Your task to perform on an android device: Search for a new foundation (skincare) product Image 0: 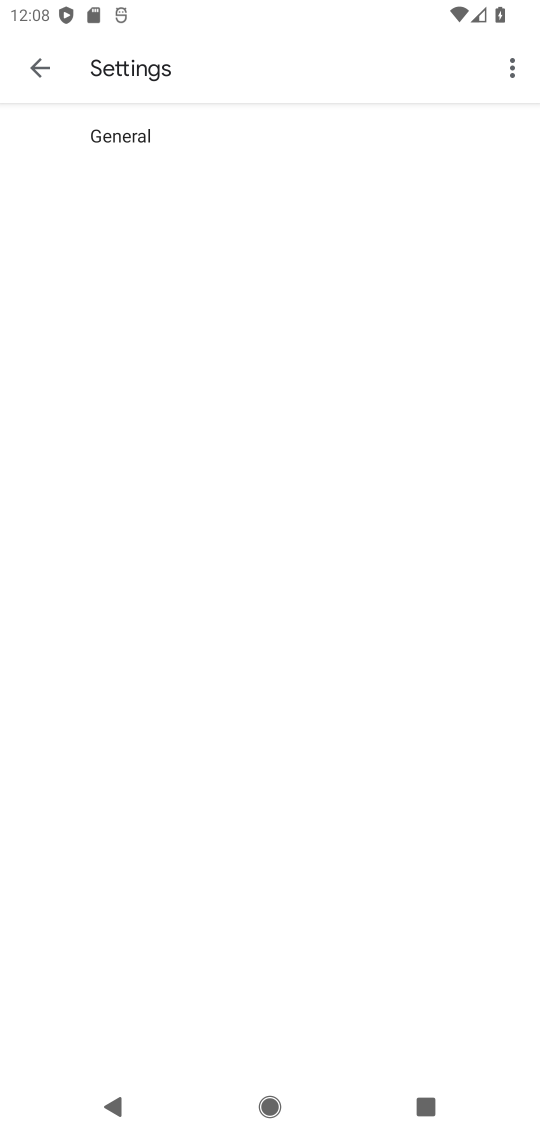
Step 0: press home button
Your task to perform on an android device: Search for a new foundation (skincare) product Image 1: 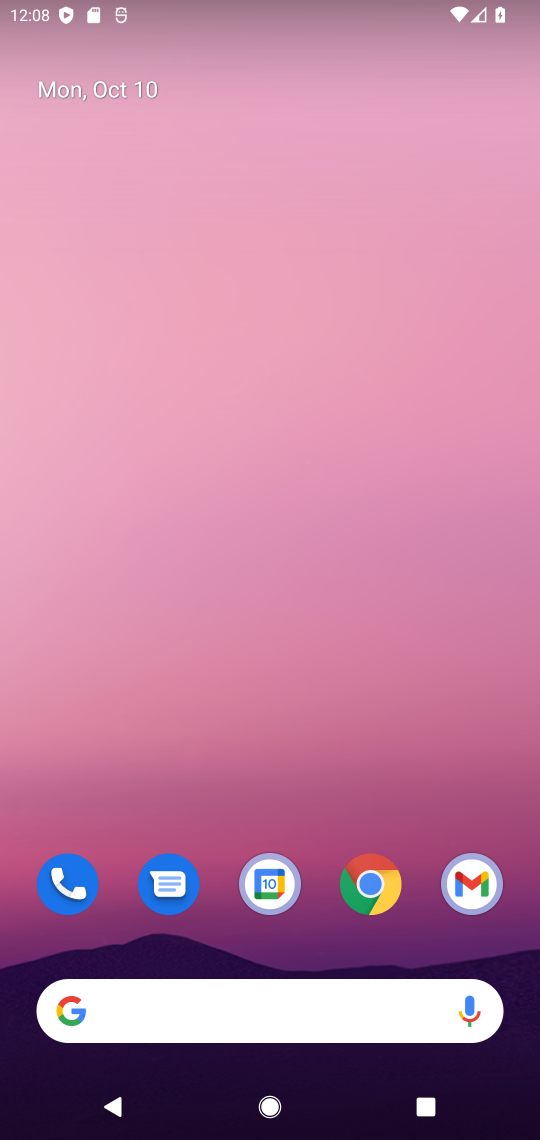
Step 1: click (362, 883)
Your task to perform on an android device: Search for a new foundation (skincare) product Image 2: 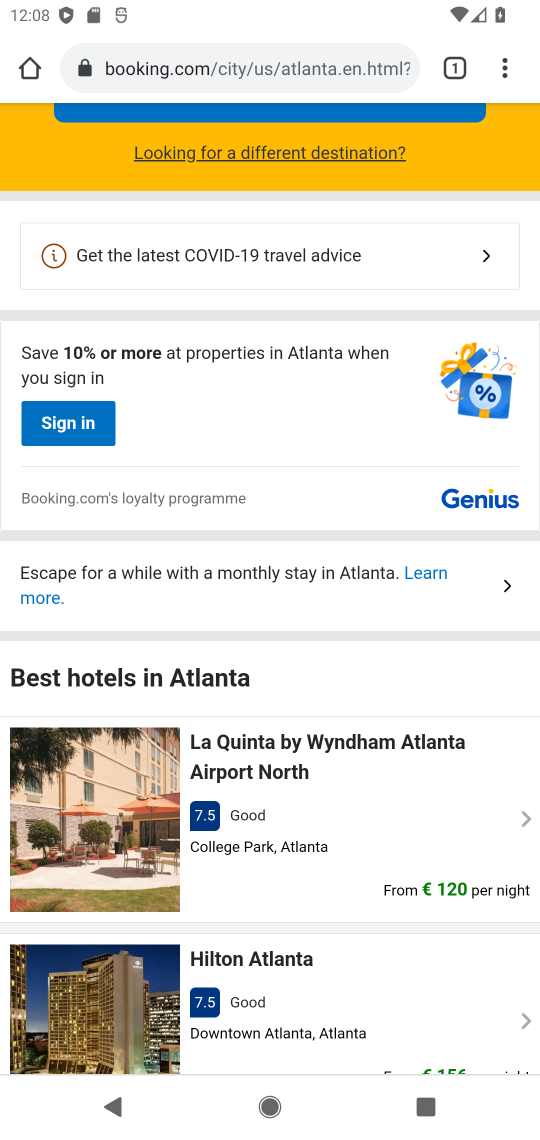
Step 2: click (270, 78)
Your task to perform on an android device: Search for a new foundation (skincare) product Image 3: 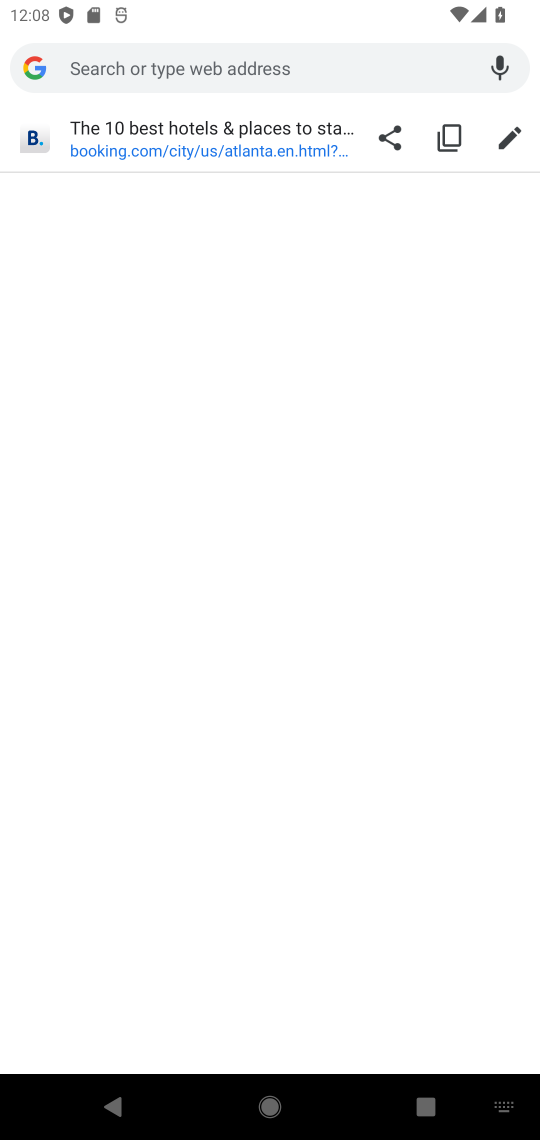
Step 3: type "foundation"
Your task to perform on an android device: Search for a new foundation (skincare) product Image 4: 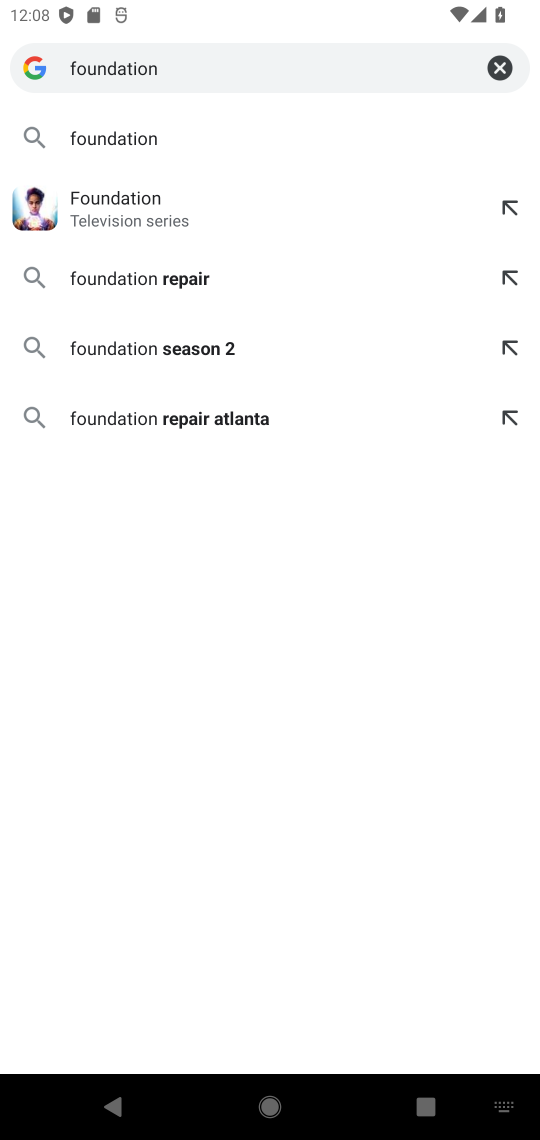
Step 4: type " skin care product"
Your task to perform on an android device: Search for a new foundation (skincare) product Image 5: 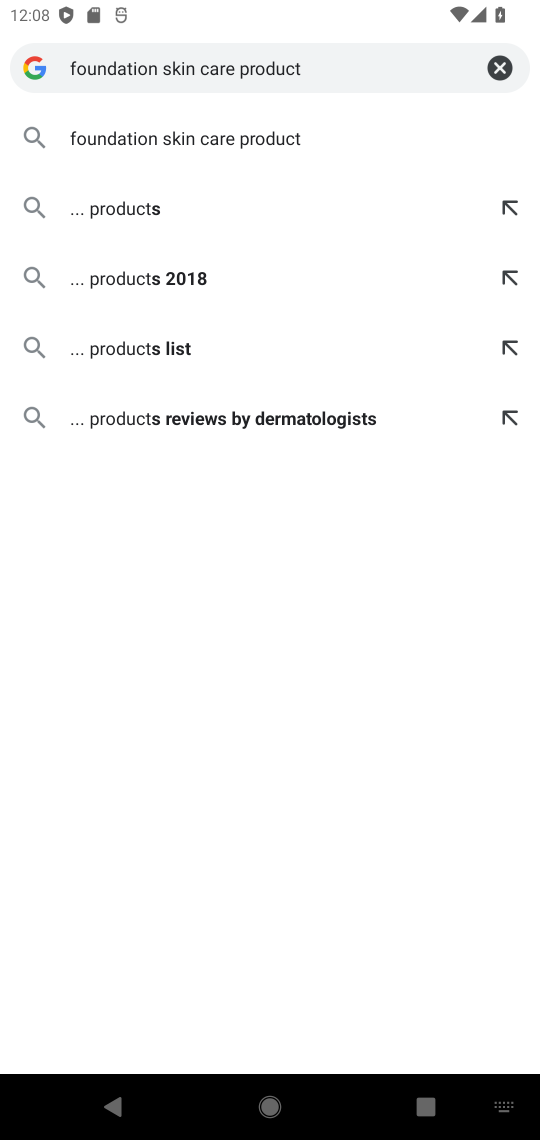
Step 5: press enter
Your task to perform on an android device: Search for a new foundation (skincare) product Image 6: 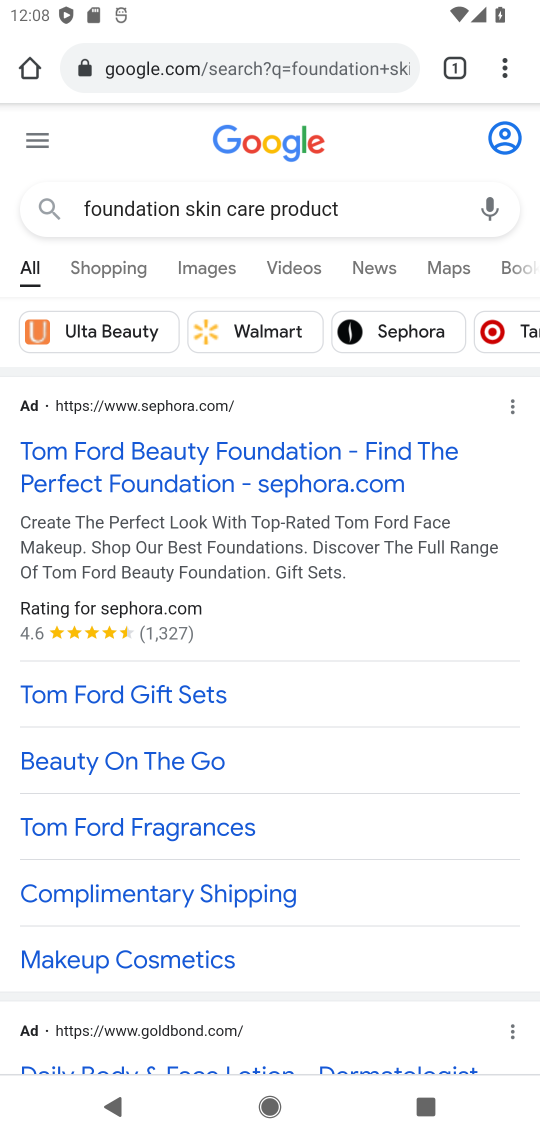
Step 6: drag from (363, 732) to (322, 269)
Your task to perform on an android device: Search for a new foundation (skincare) product Image 7: 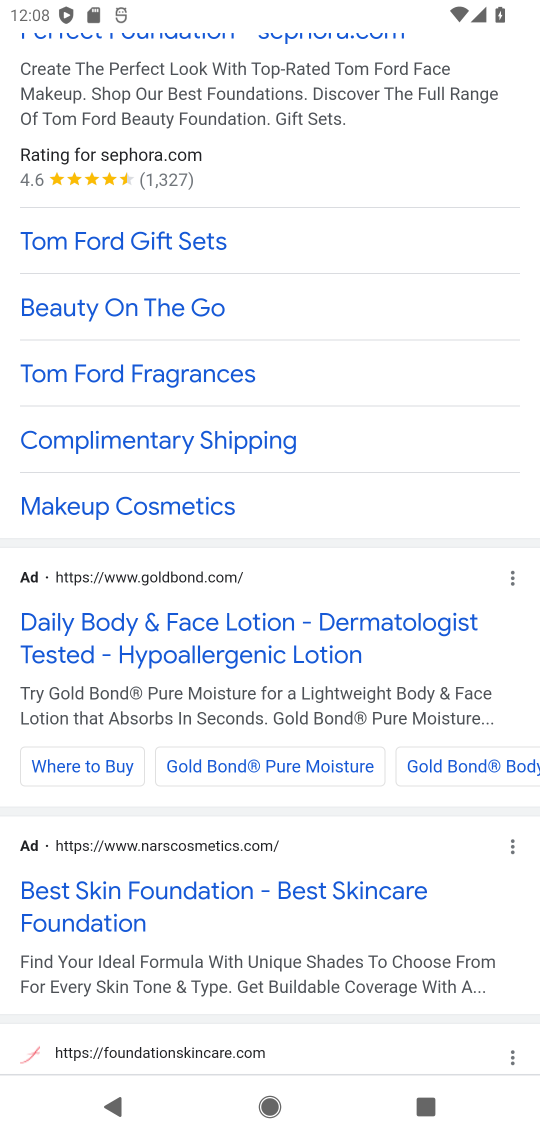
Step 7: drag from (317, 942) to (312, 716)
Your task to perform on an android device: Search for a new foundation (skincare) product Image 8: 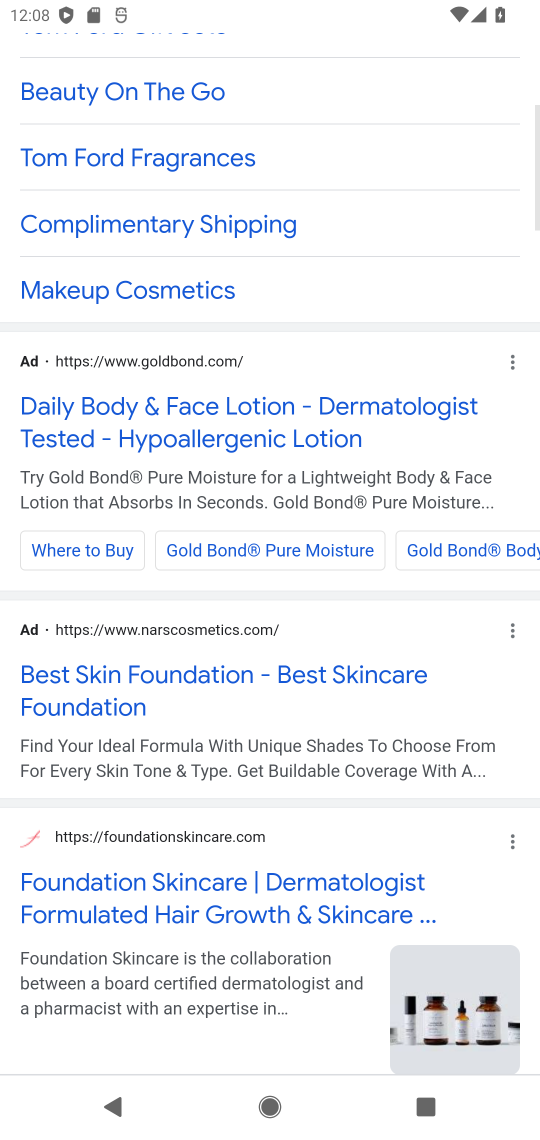
Step 8: click (80, 700)
Your task to perform on an android device: Search for a new foundation (skincare) product Image 9: 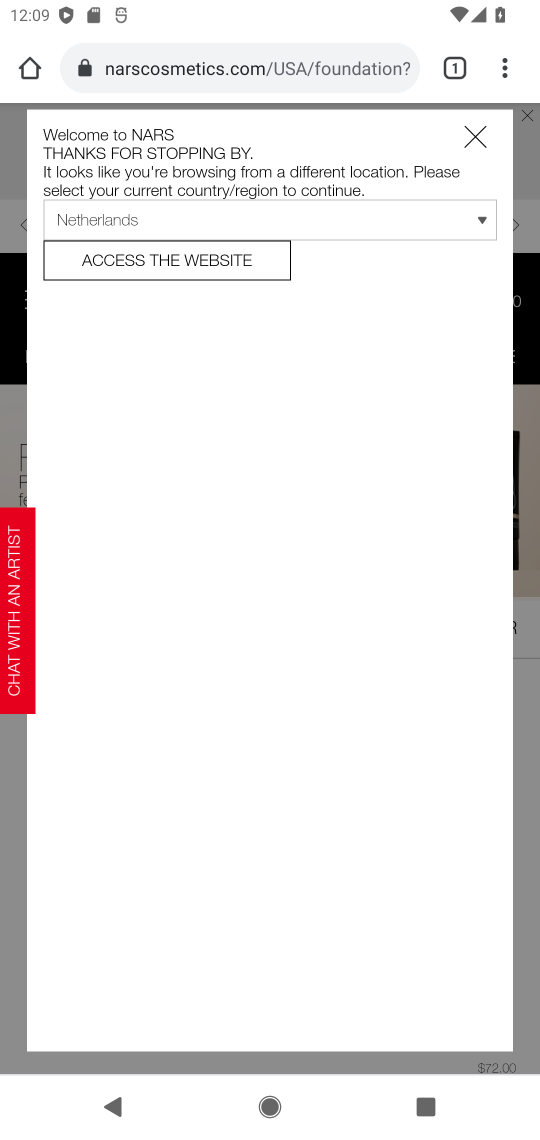
Step 9: click (190, 261)
Your task to perform on an android device: Search for a new foundation (skincare) product Image 10: 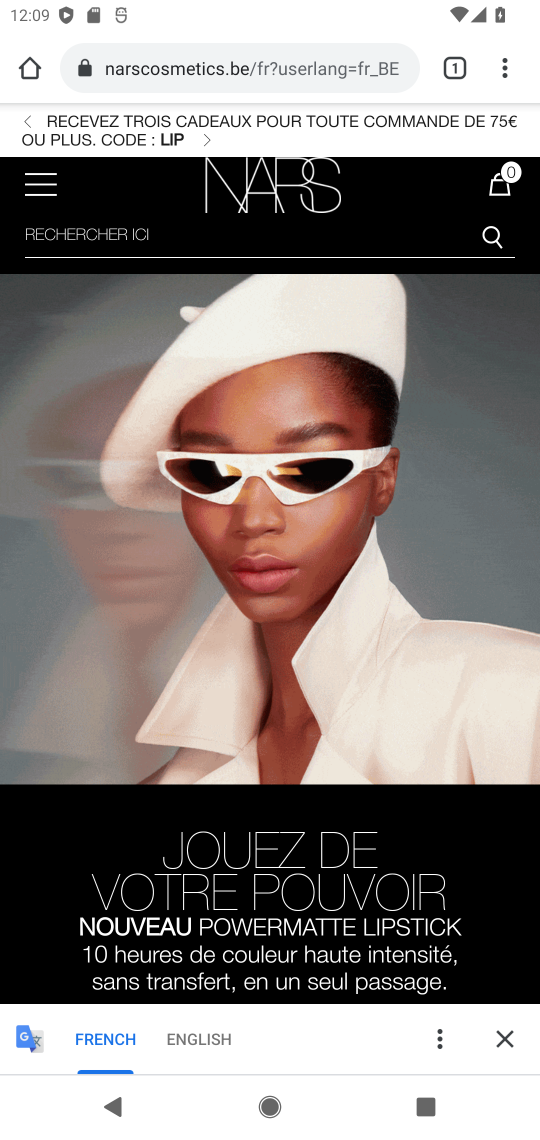
Step 10: drag from (364, 900) to (342, 285)
Your task to perform on an android device: Search for a new foundation (skincare) product Image 11: 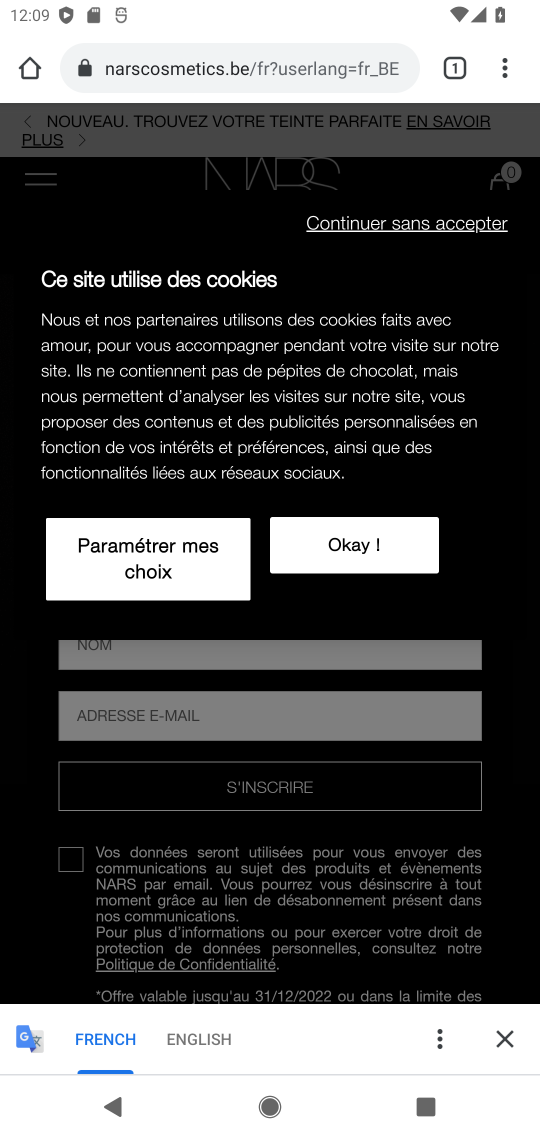
Step 11: click (350, 552)
Your task to perform on an android device: Search for a new foundation (skincare) product Image 12: 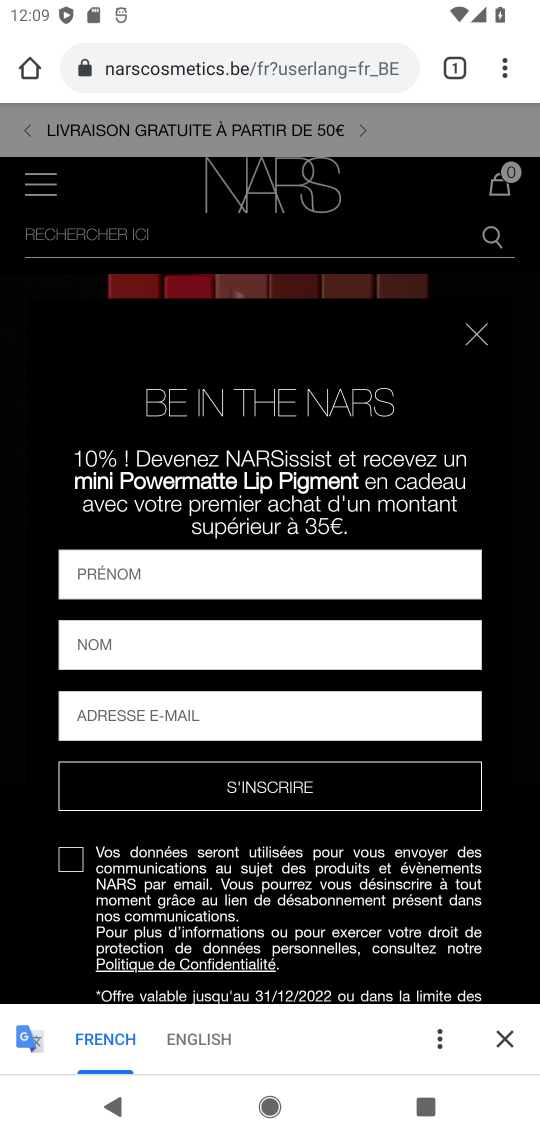
Step 12: drag from (352, 869) to (323, 416)
Your task to perform on an android device: Search for a new foundation (skincare) product Image 13: 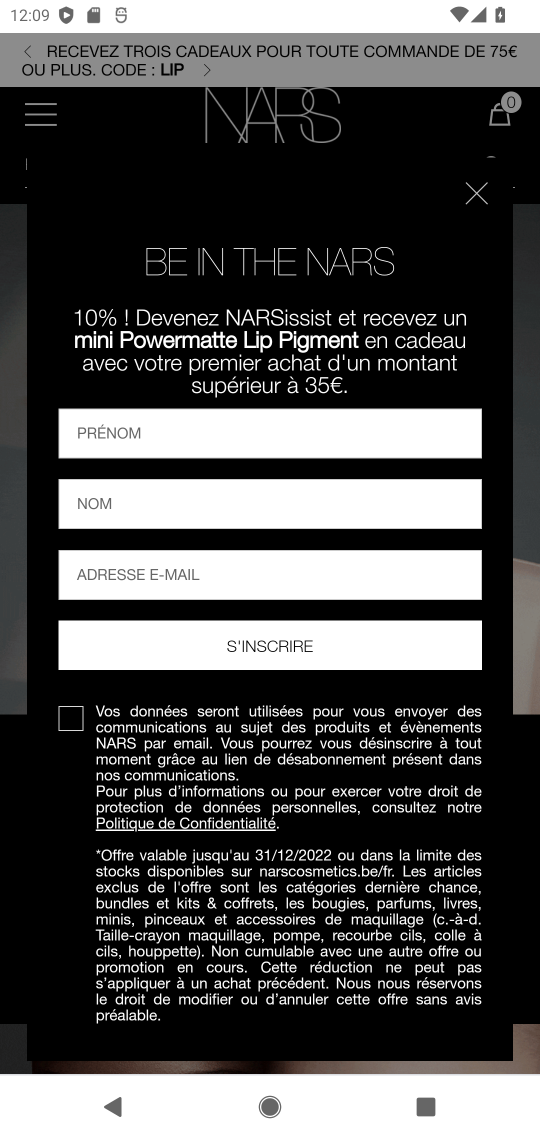
Step 13: click (465, 196)
Your task to perform on an android device: Search for a new foundation (skincare) product Image 14: 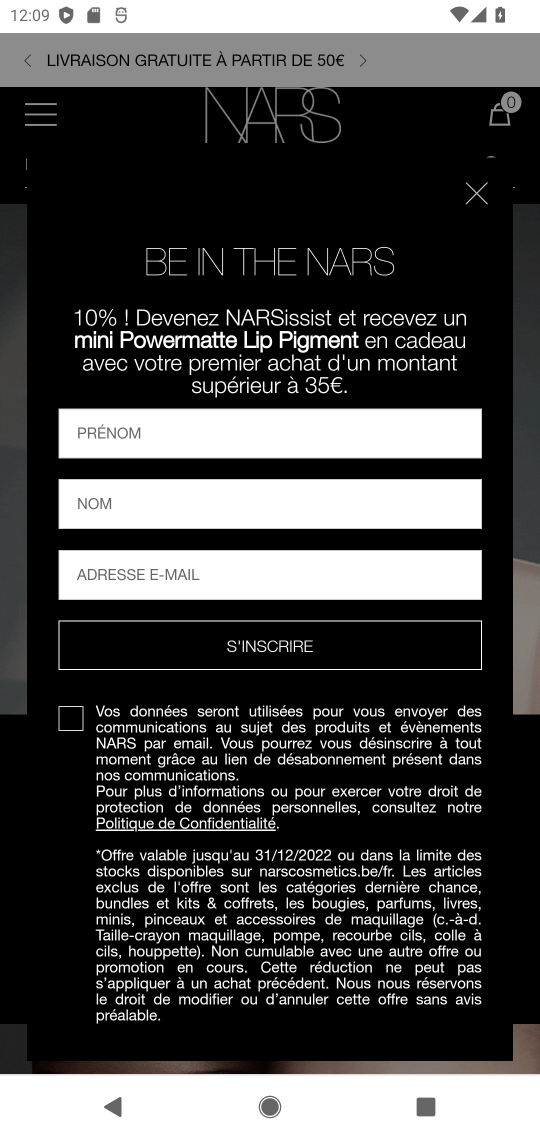
Step 14: click (473, 201)
Your task to perform on an android device: Search for a new foundation (skincare) product Image 15: 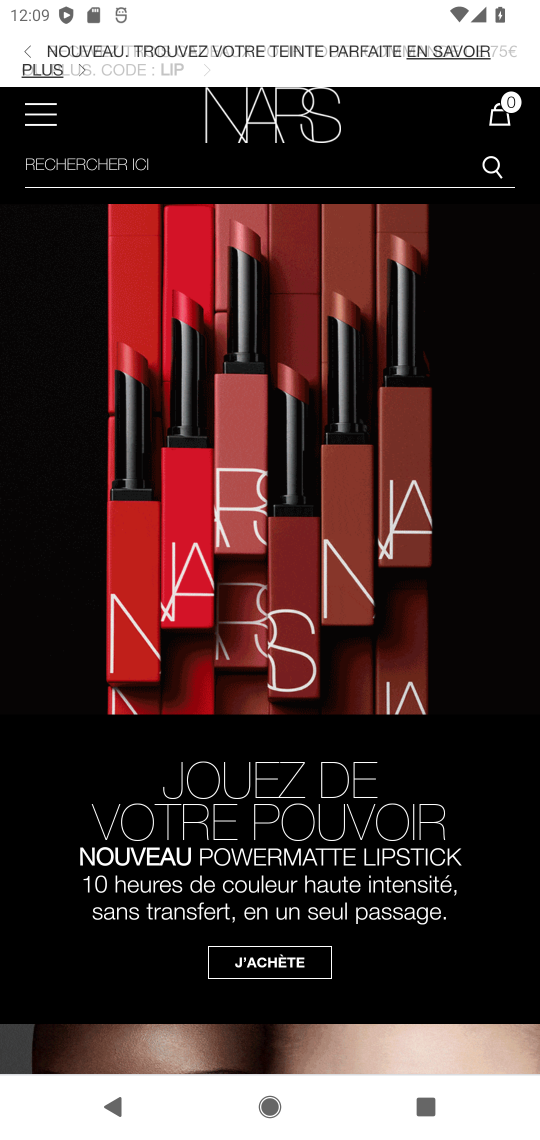
Step 15: press back button
Your task to perform on an android device: Search for a new foundation (skincare) product Image 16: 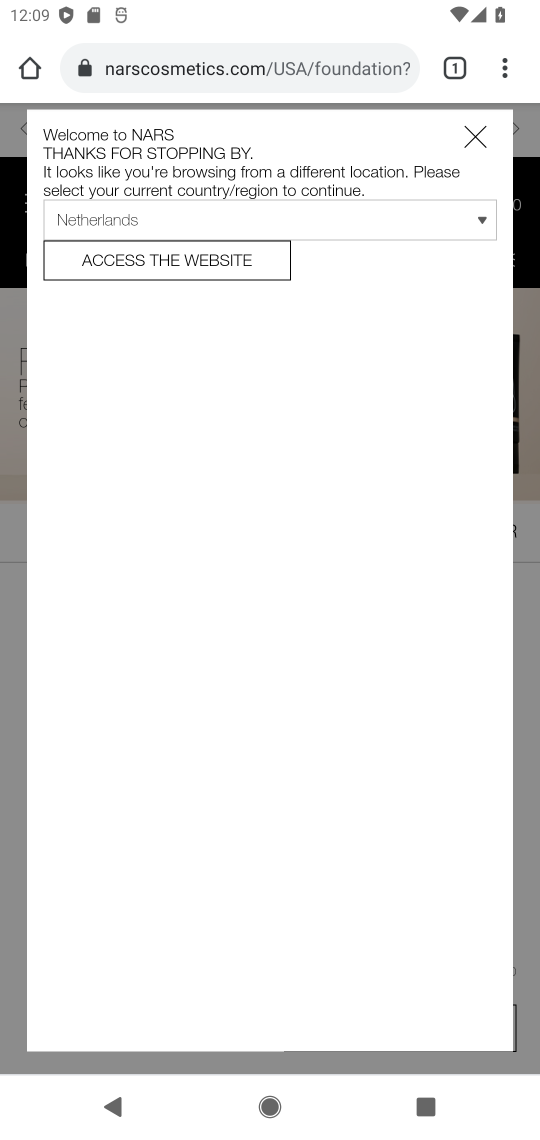
Step 16: drag from (332, 843) to (348, 454)
Your task to perform on an android device: Search for a new foundation (skincare) product Image 17: 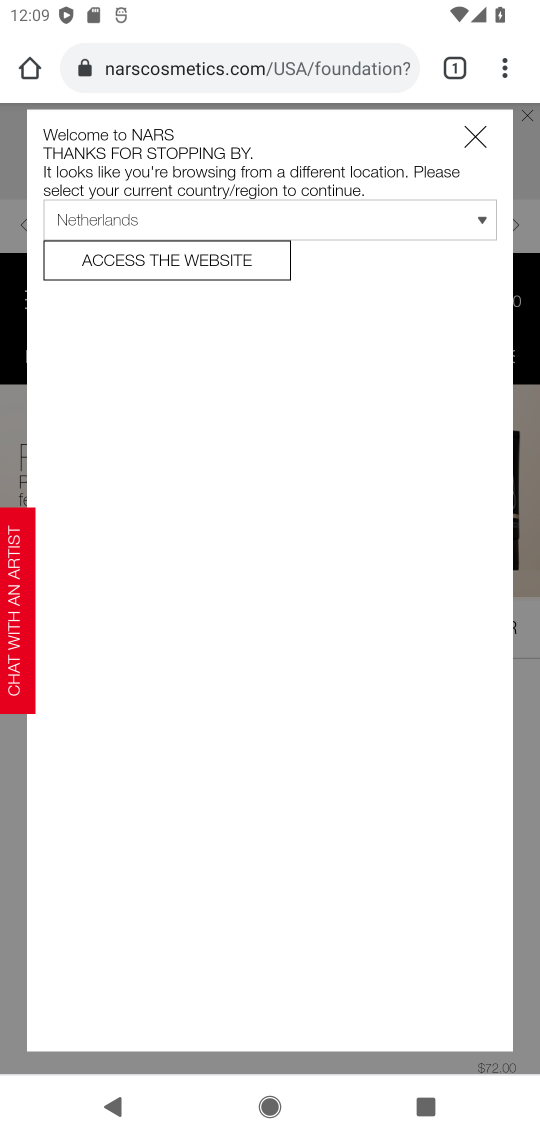
Step 17: click (470, 139)
Your task to perform on an android device: Search for a new foundation (skincare) product Image 18: 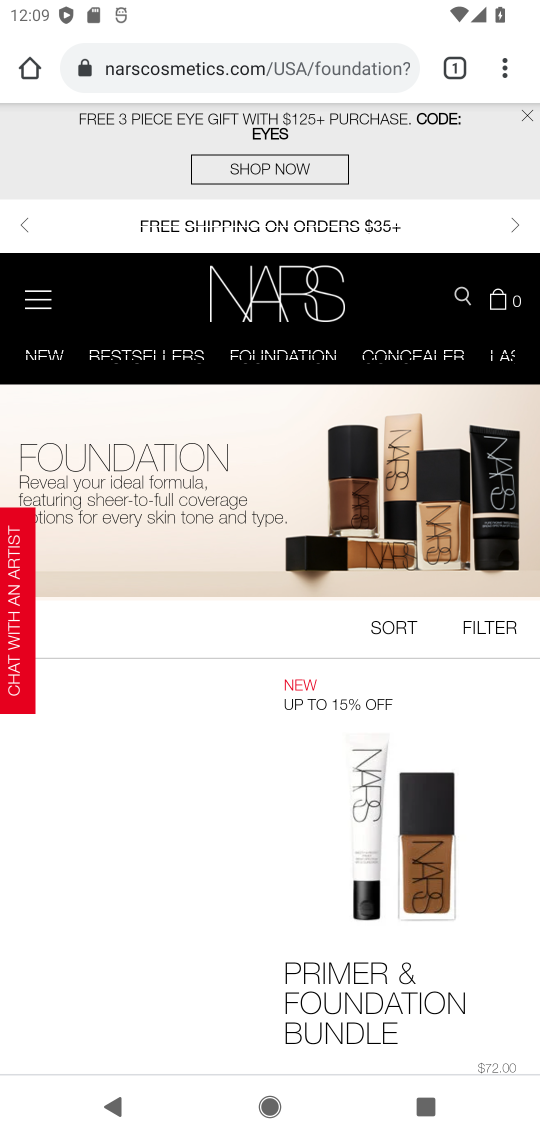
Step 18: task complete